Your task to perform on an android device: turn pop-ups on in chrome Image 0: 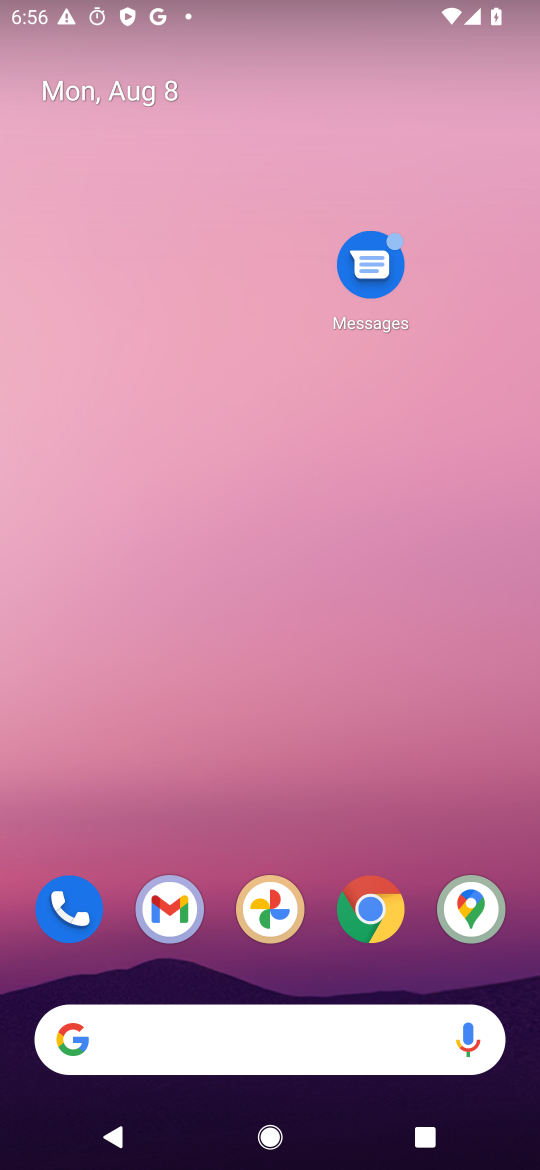
Step 0: click (368, 899)
Your task to perform on an android device: turn pop-ups on in chrome Image 1: 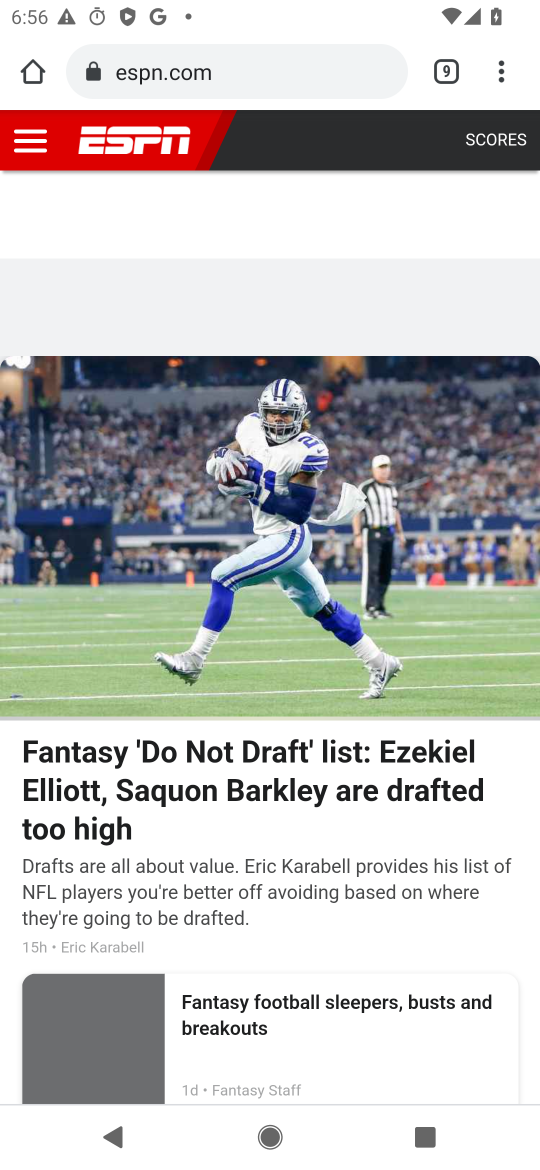
Step 1: drag from (501, 74) to (351, 999)
Your task to perform on an android device: turn pop-ups on in chrome Image 2: 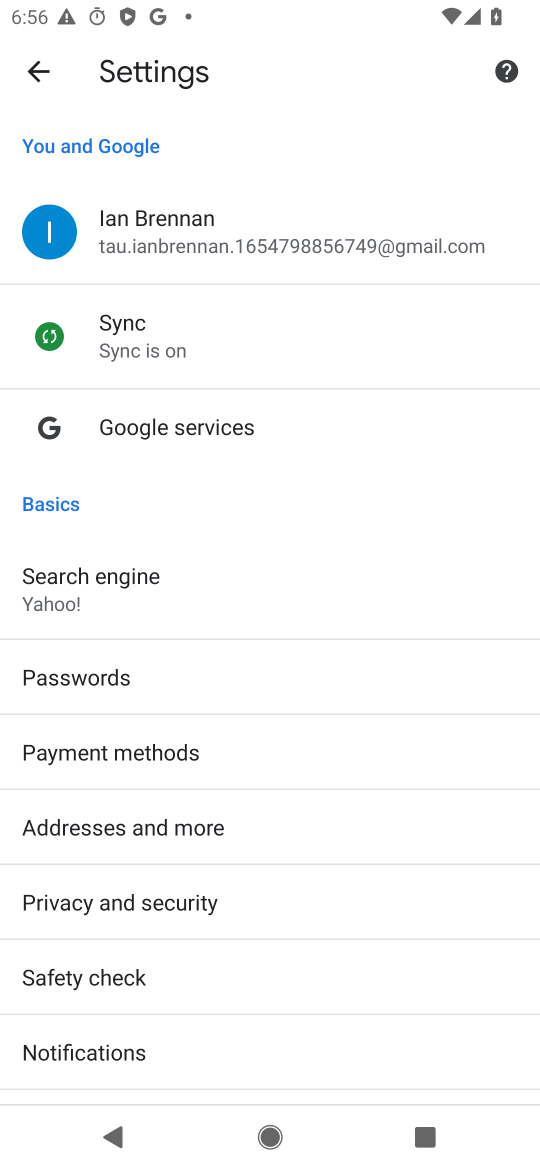
Step 2: drag from (290, 987) to (406, 22)
Your task to perform on an android device: turn pop-ups on in chrome Image 3: 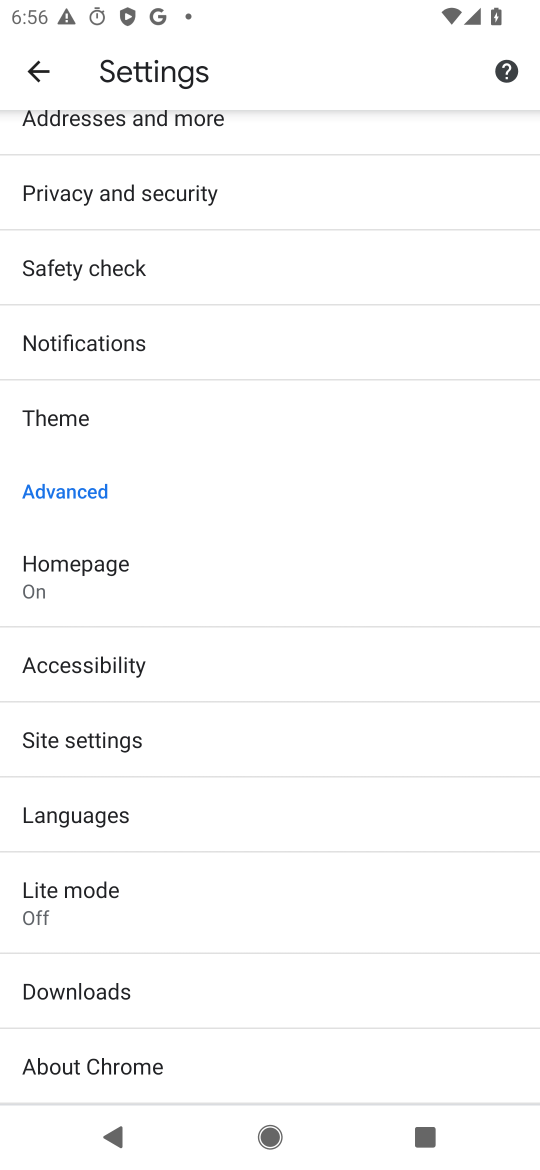
Step 3: click (67, 737)
Your task to perform on an android device: turn pop-ups on in chrome Image 4: 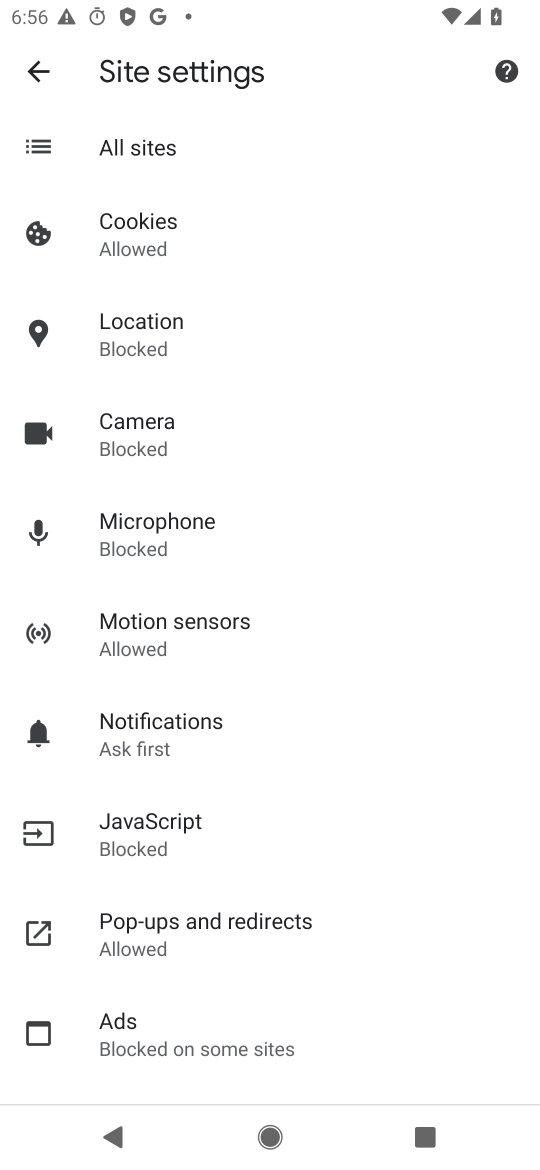
Step 4: click (184, 934)
Your task to perform on an android device: turn pop-ups on in chrome Image 5: 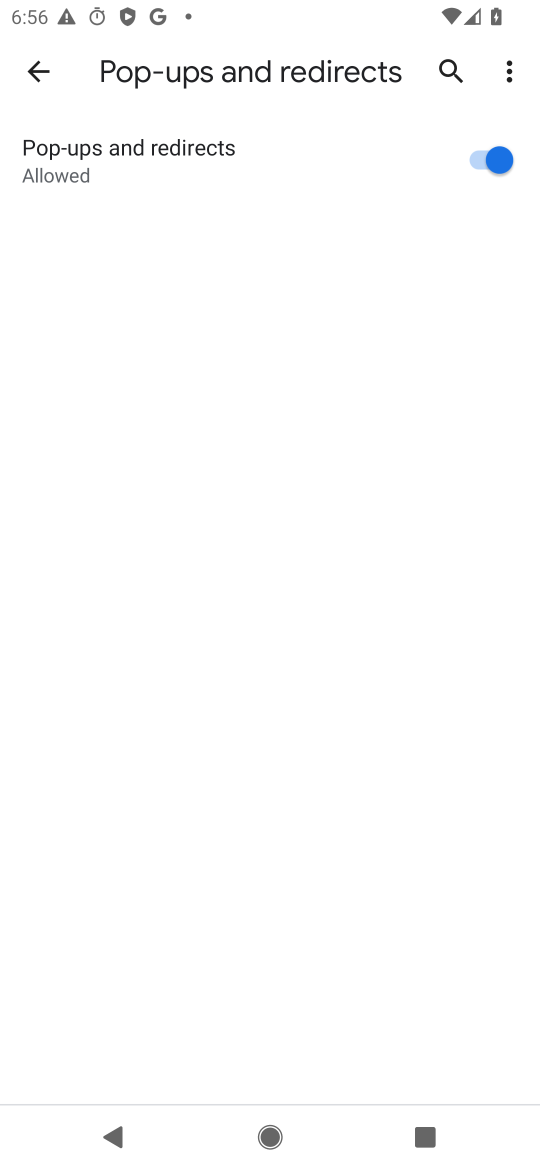
Step 5: task complete